Your task to perform on an android device: find snoozed emails in the gmail app Image 0: 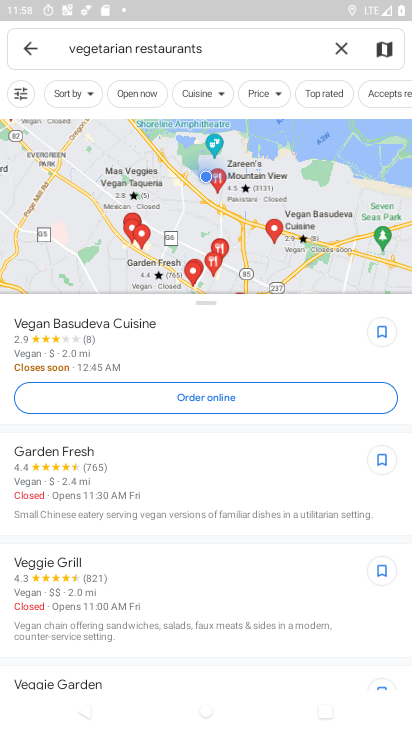
Step 0: press home button
Your task to perform on an android device: find snoozed emails in the gmail app Image 1: 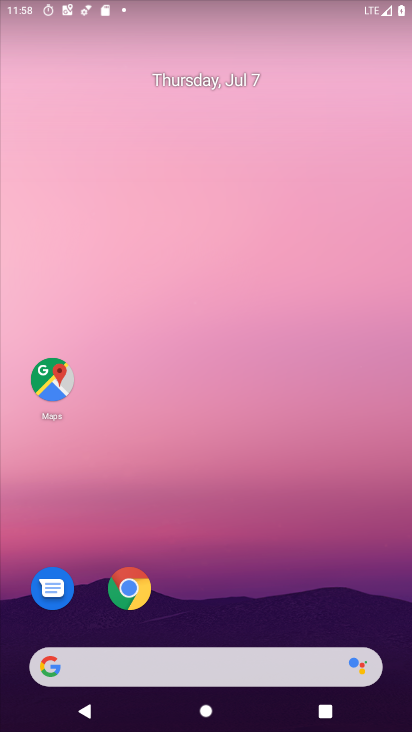
Step 1: drag from (163, 670) to (295, 143)
Your task to perform on an android device: find snoozed emails in the gmail app Image 2: 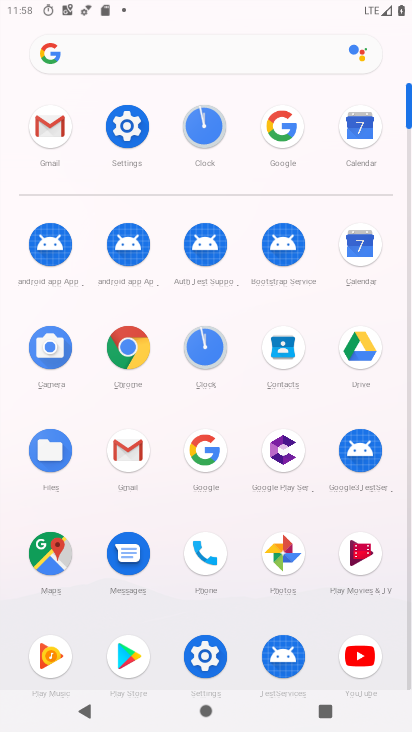
Step 2: click (57, 138)
Your task to perform on an android device: find snoozed emails in the gmail app Image 3: 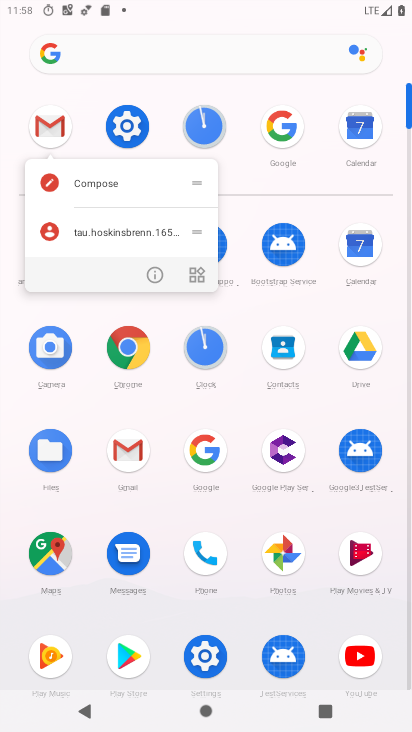
Step 3: click (52, 129)
Your task to perform on an android device: find snoozed emails in the gmail app Image 4: 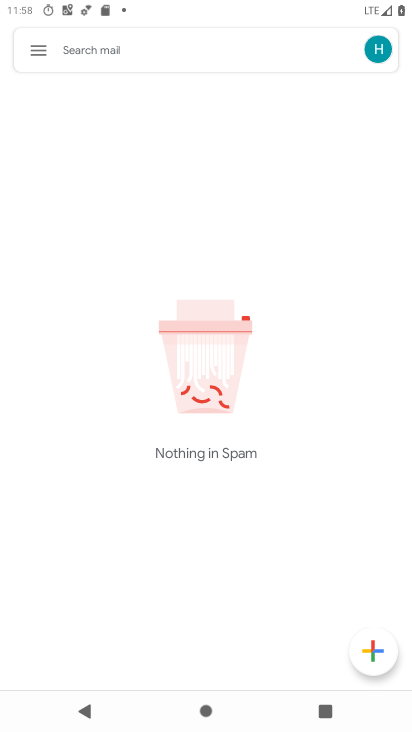
Step 4: click (34, 51)
Your task to perform on an android device: find snoozed emails in the gmail app Image 5: 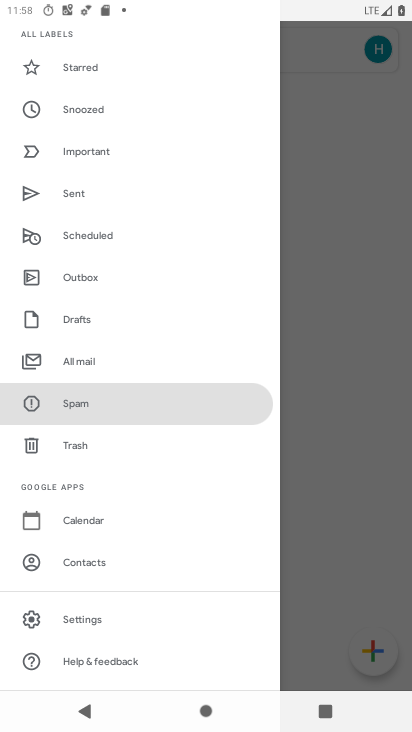
Step 5: click (100, 111)
Your task to perform on an android device: find snoozed emails in the gmail app Image 6: 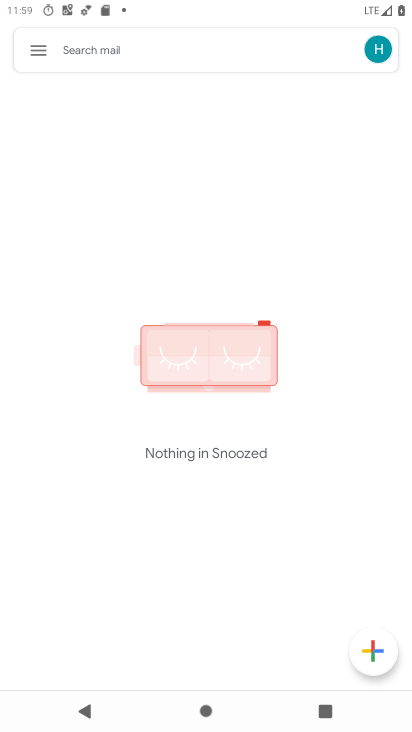
Step 6: task complete